Your task to perform on an android device: Open Chrome and go to settings Image 0: 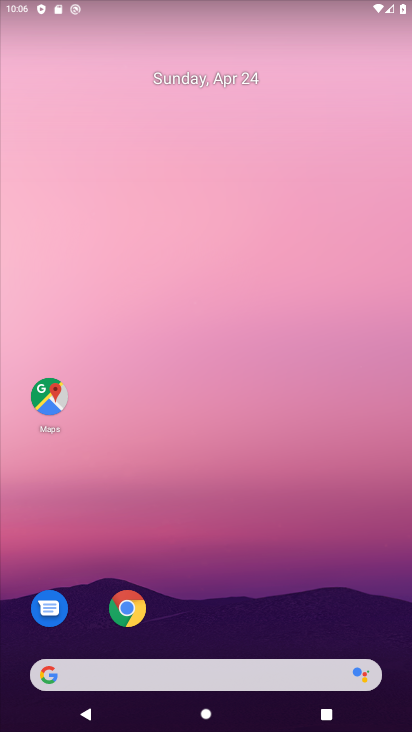
Step 0: drag from (275, 698) to (199, 325)
Your task to perform on an android device: Open Chrome and go to settings Image 1: 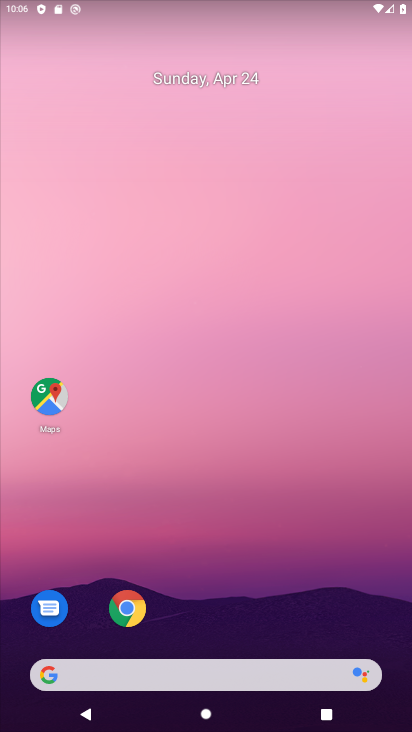
Step 1: drag from (239, 692) to (219, 101)
Your task to perform on an android device: Open Chrome and go to settings Image 2: 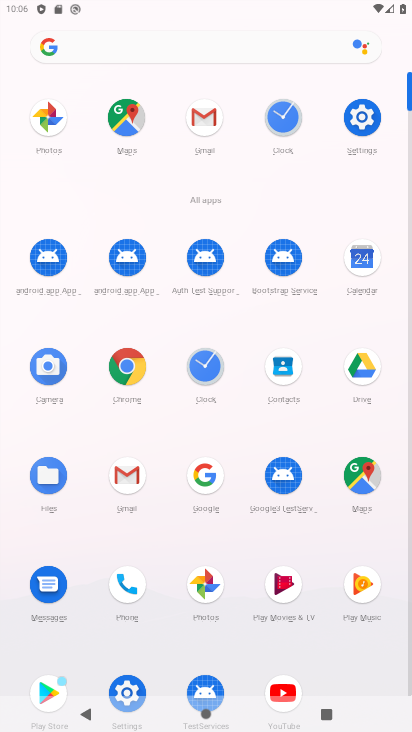
Step 2: click (132, 362)
Your task to perform on an android device: Open Chrome and go to settings Image 3: 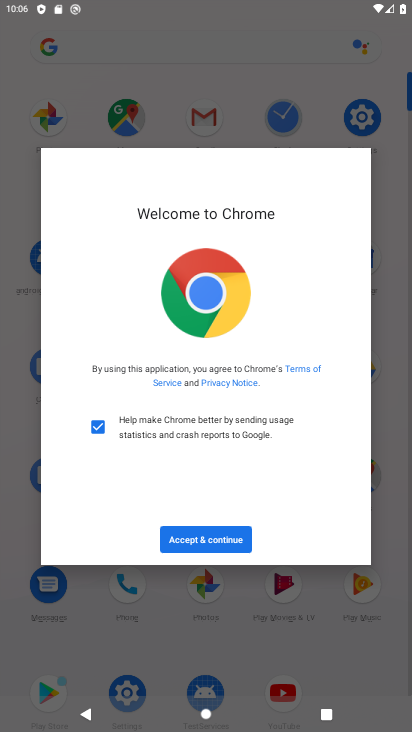
Step 3: click (203, 542)
Your task to perform on an android device: Open Chrome and go to settings Image 4: 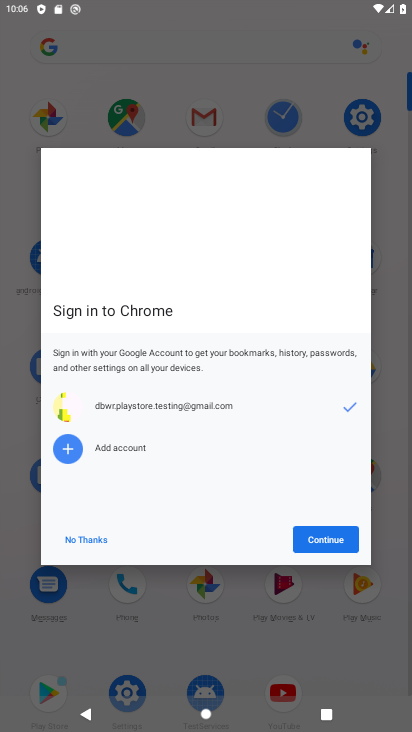
Step 4: click (313, 550)
Your task to perform on an android device: Open Chrome and go to settings Image 5: 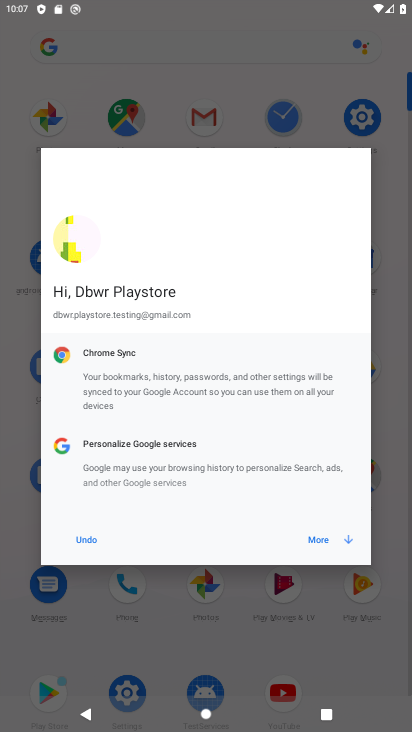
Step 5: click (348, 545)
Your task to perform on an android device: Open Chrome and go to settings Image 6: 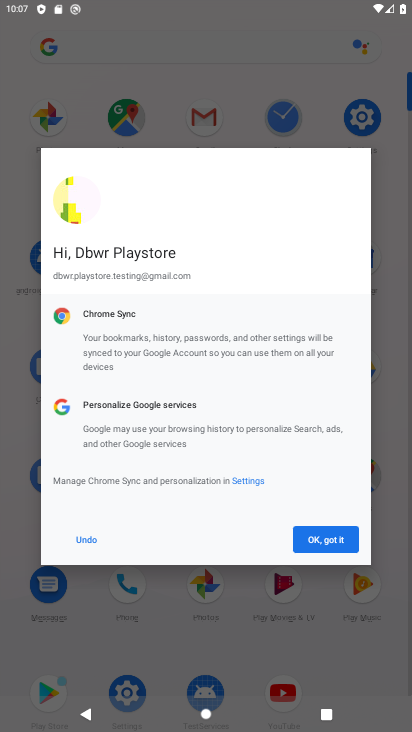
Step 6: click (348, 545)
Your task to perform on an android device: Open Chrome and go to settings Image 7: 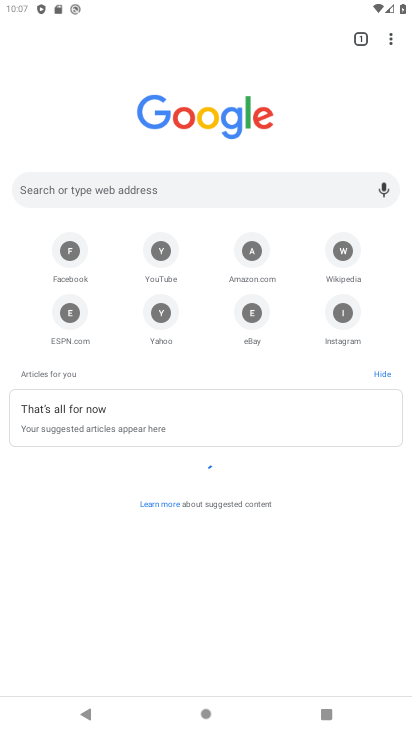
Step 7: click (387, 44)
Your task to perform on an android device: Open Chrome and go to settings Image 8: 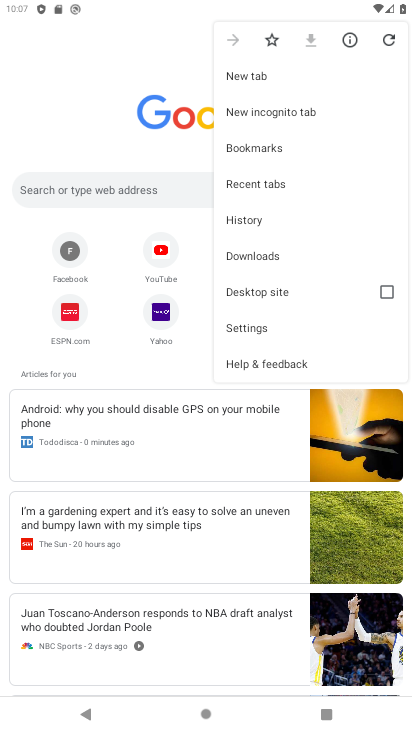
Step 8: click (251, 321)
Your task to perform on an android device: Open Chrome and go to settings Image 9: 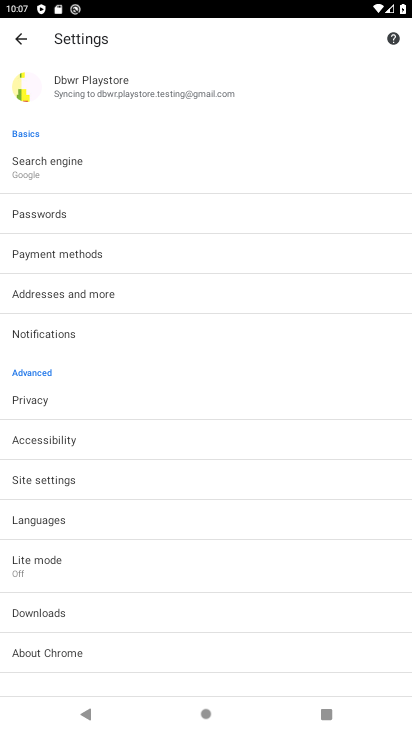
Step 9: task complete